Your task to perform on an android device: Set the phone to "Do not disturb". Image 0: 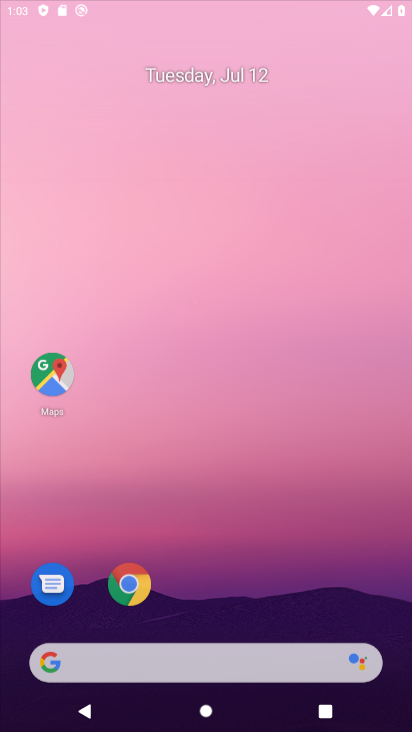
Step 0: click (242, 731)
Your task to perform on an android device: Set the phone to "Do not disturb". Image 1: 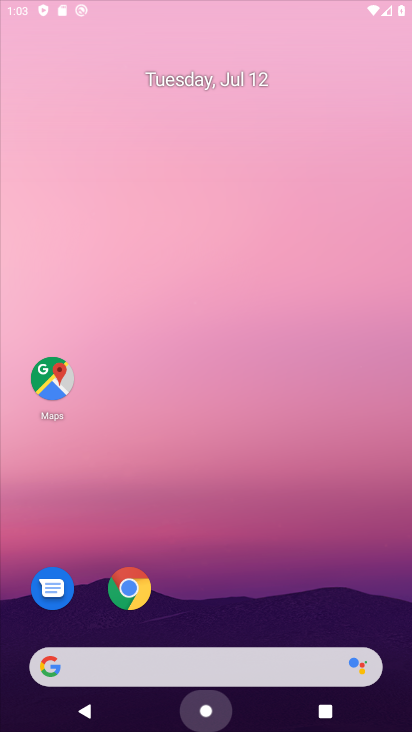
Step 1: drag from (230, 433) to (233, 52)
Your task to perform on an android device: Set the phone to "Do not disturb". Image 2: 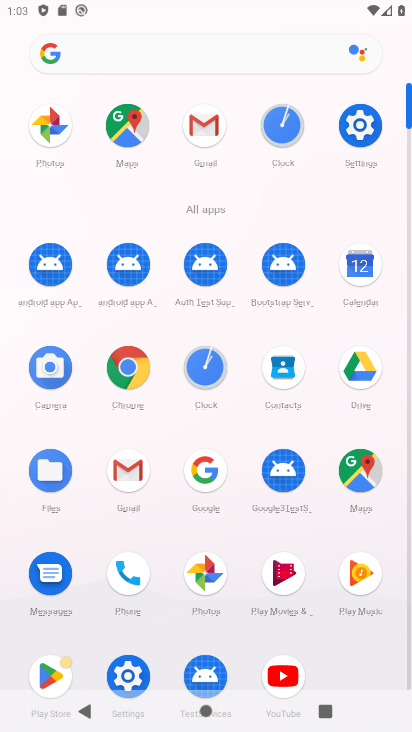
Step 2: click (346, 125)
Your task to perform on an android device: Set the phone to "Do not disturb". Image 3: 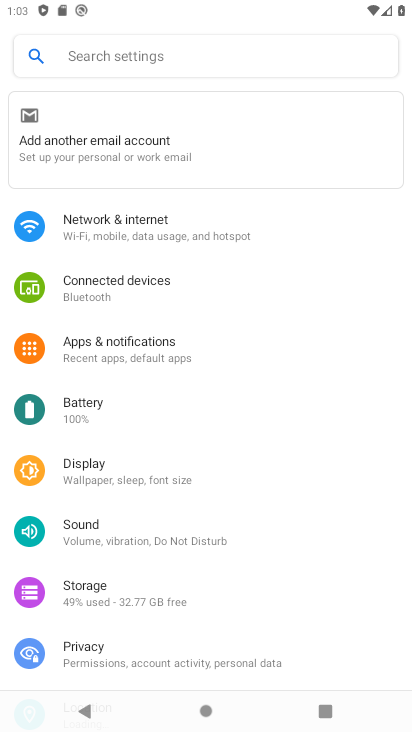
Step 3: click (142, 51)
Your task to perform on an android device: Set the phone to "Do not disturb". Image 4: 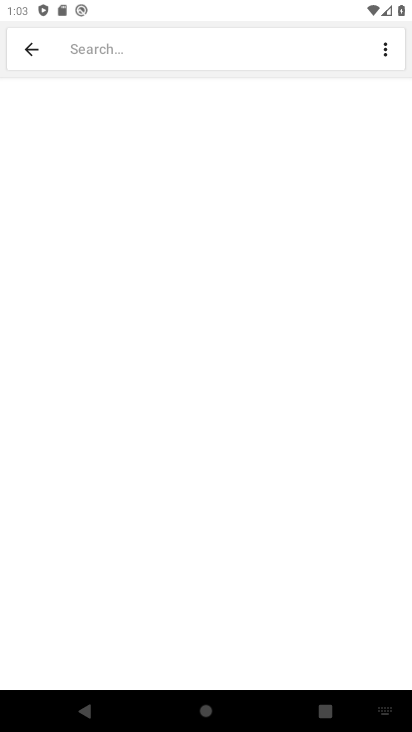
Step 4: click (132, 59)
Your task to perform on an android device: Set the phone to "Do not disturb". Image 5: 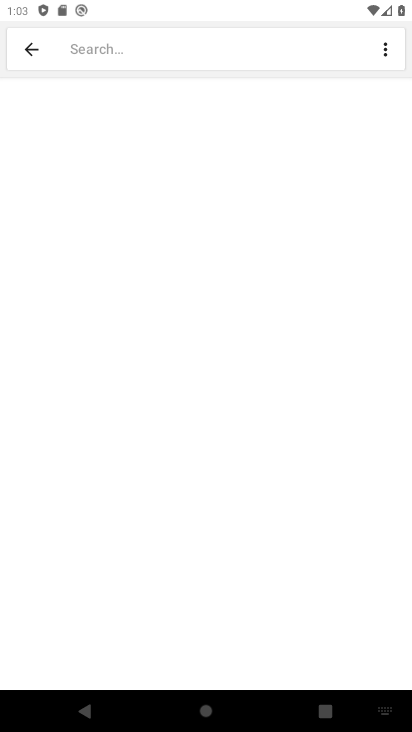
Step 5: type "Do not disturb"
Your task to perform on an android device: Set the phone to "Do not disturb". Image 6: 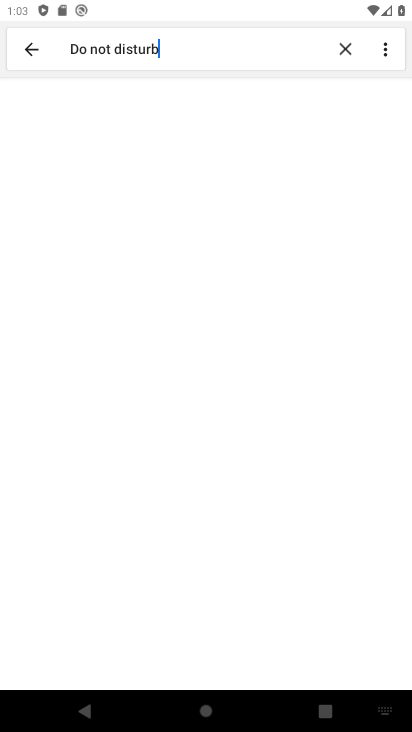
Step 6: type ""
Your task to perform on an android device: Set the phone to "Do not disturb". Image 7: 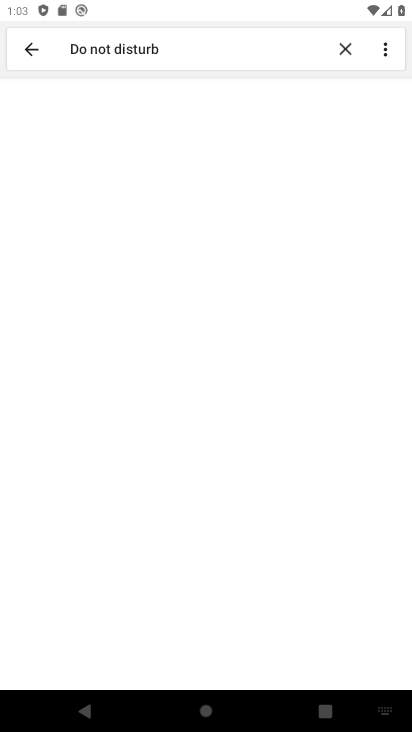
Step 7: click (133, 105)
Your task to perform on an android device: Set the phone to "Do not disturb". Image 8: 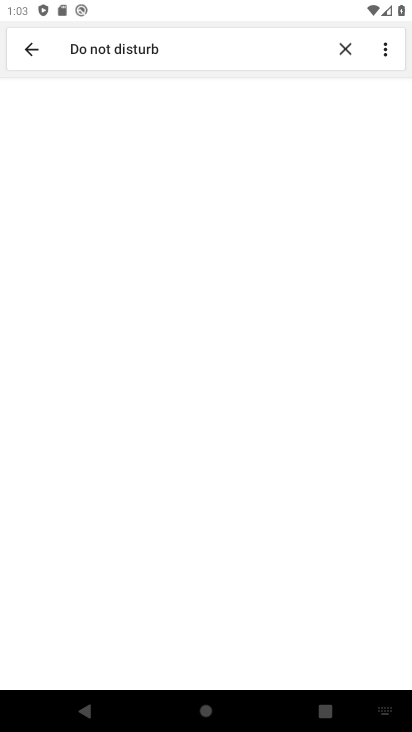
Step 8: click (130, 103)
Your task to perform on an android device: Set the phone to "Do not disturb". Image 9: 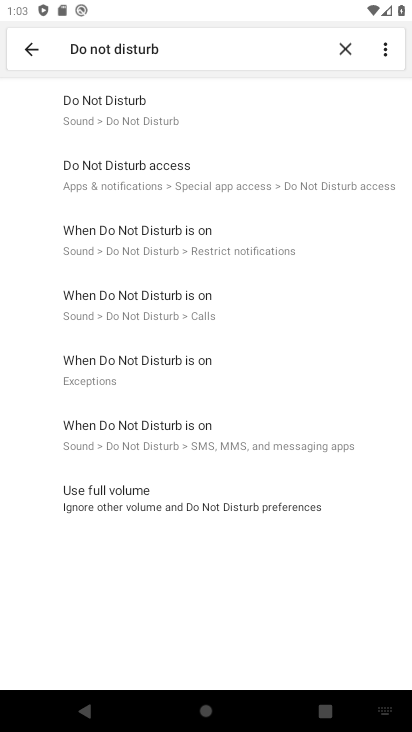
Step 9: click (136, 123)
Your task to perform on an android device: Set the phone to "Do not disturb". Image 10: 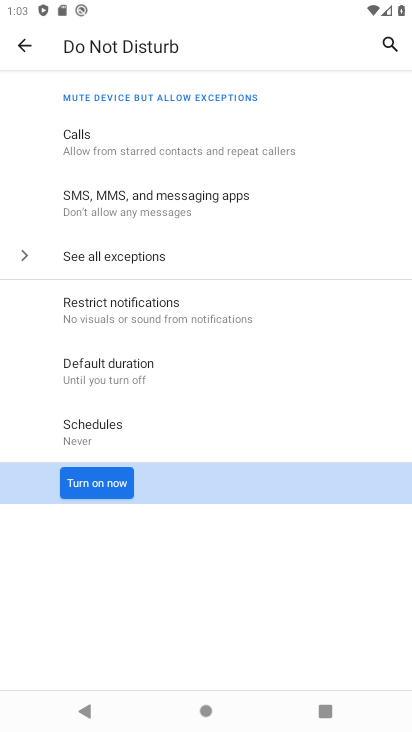
Step 10: drag from (220, 440) to (253, 221)
Your task to perform on an android device: Set the phone to "Do not disturb". Image 11: 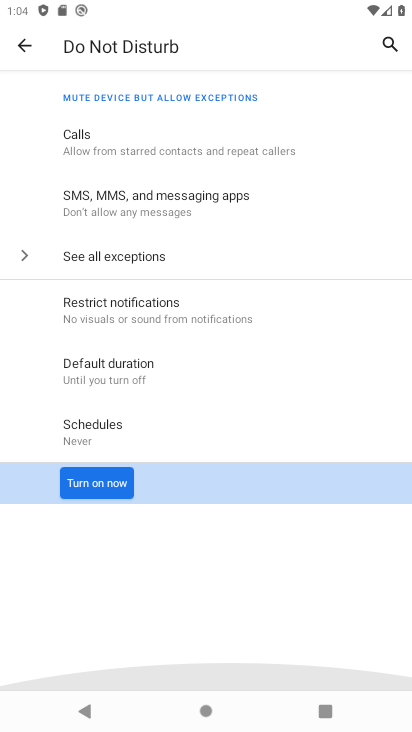
Step 11: drag from (221, 134) to (203, 542)
Your task to perform on an android device: Set the phone to "Do not disturb". Image 12: 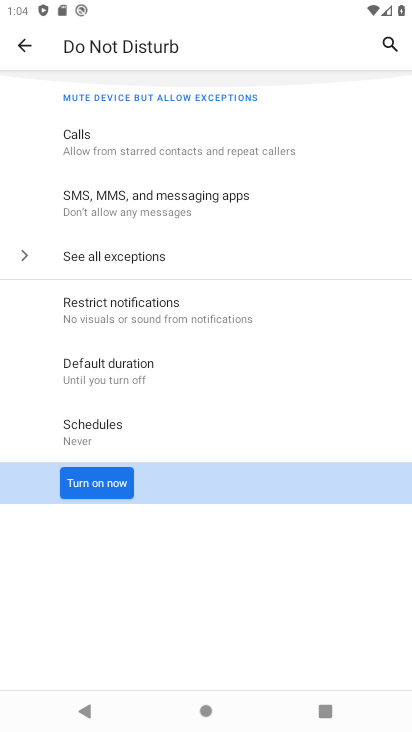
Step 12: click (195, 544)
Your task to perform on an android device: Set the phone to "Do not disturb". Image 13: 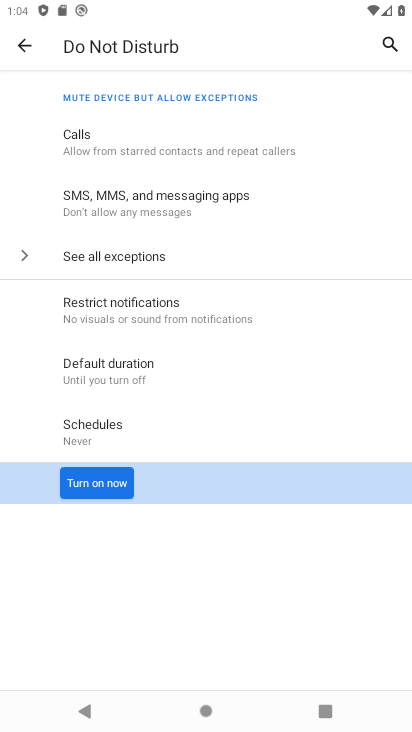
Step 13: click (250, 43)
Your task to perform on an android device: Set the phone to "Do not disturb". Image 14: 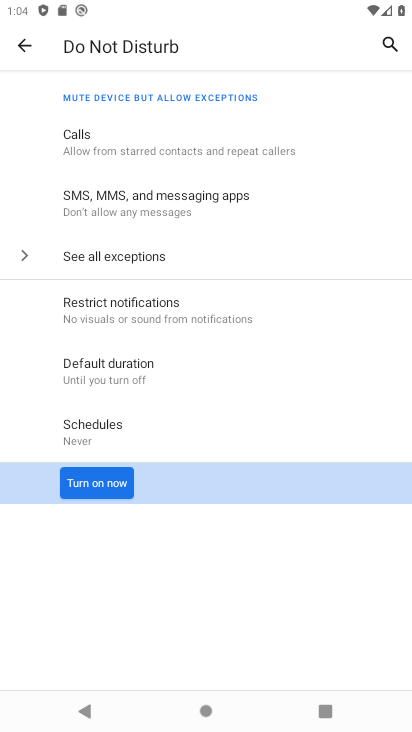
Step 14: drag from (121, 175) to (217, 537)
Your task to perform on an android device: Set the phone to "Do not disturb". Image 15: 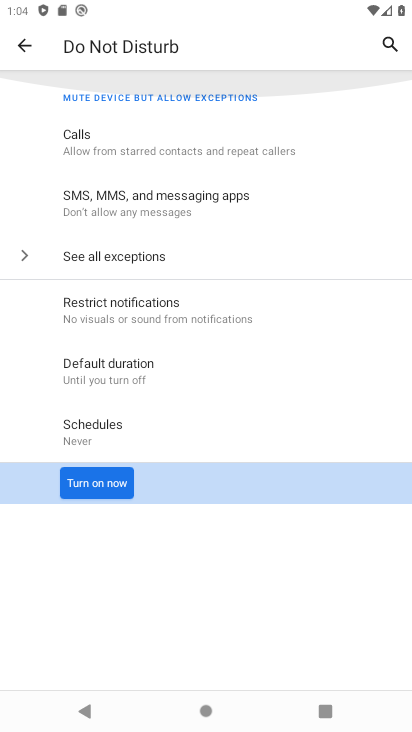
Step 15: click (163, 544)
Your task to perform on an android device: Set the phone to "Do not disturb". Image 16: 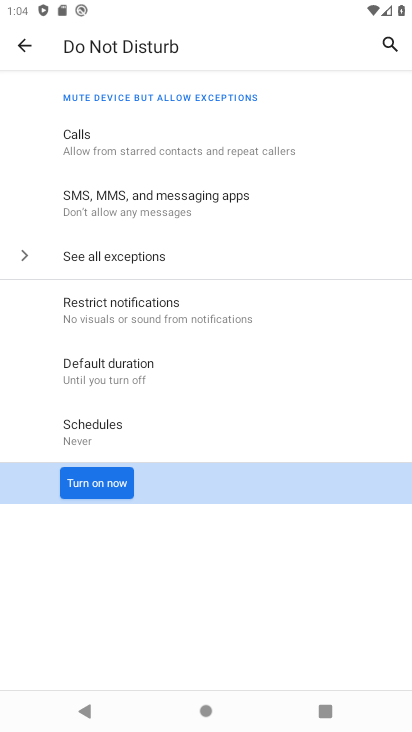
Step 16: drag from (156, 314) to (186, 548)
Your task to perform on an android device: Set the phone to "Do not disturb". Image 17: 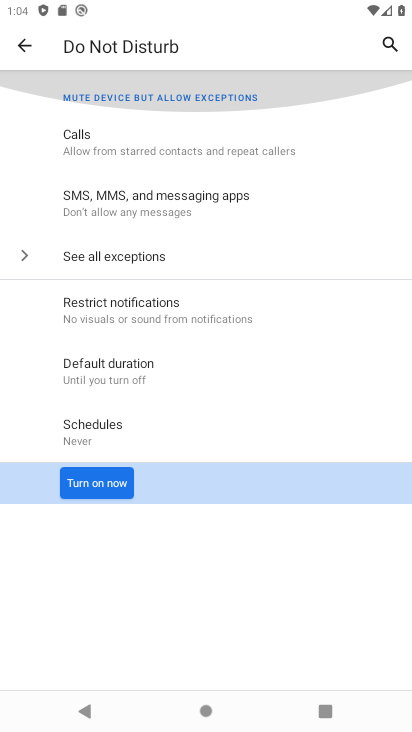
Step 17: click (174, 541)
Your task to perform on an android device: Set the phone to "Do not disturb". Image 18: 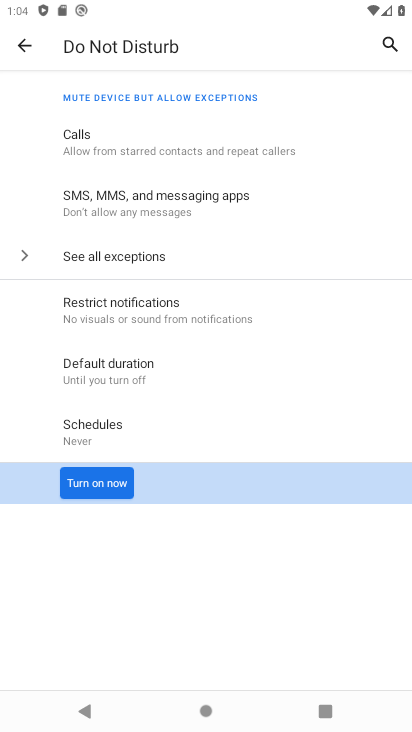
Step 18: click (151, 54)
Your task to perform on an android device: Set the phone to "Do not disturb". Image 19: 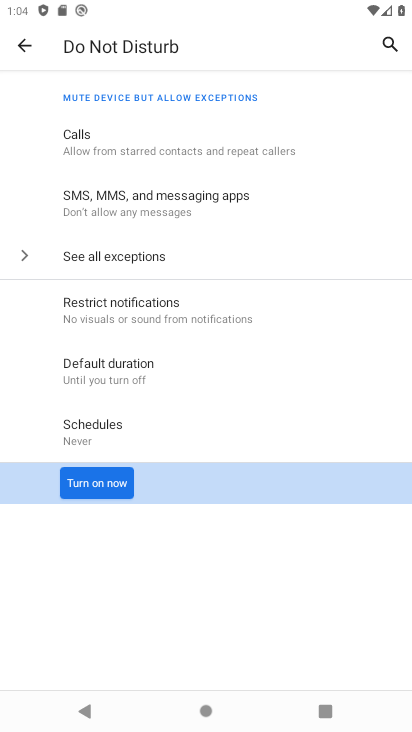
Step 19: click (151, 54)
Your task to perform on an android device: Set the phone to "Do not disturb". Image 20: 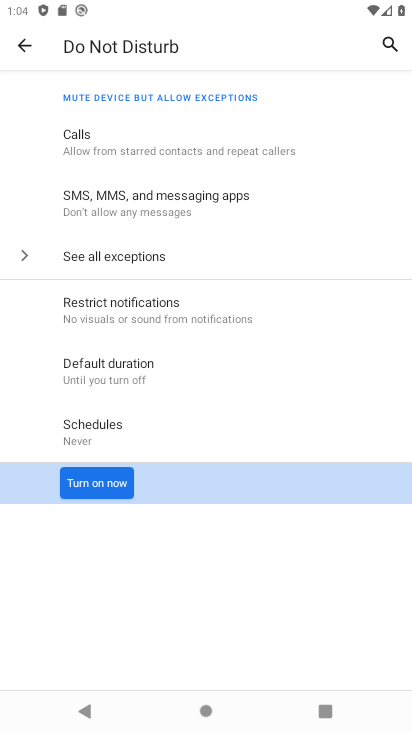
Step 20: click (162, 553)
Your task to perform on an android device: Set the phone to "Do not disturb". Image 21: 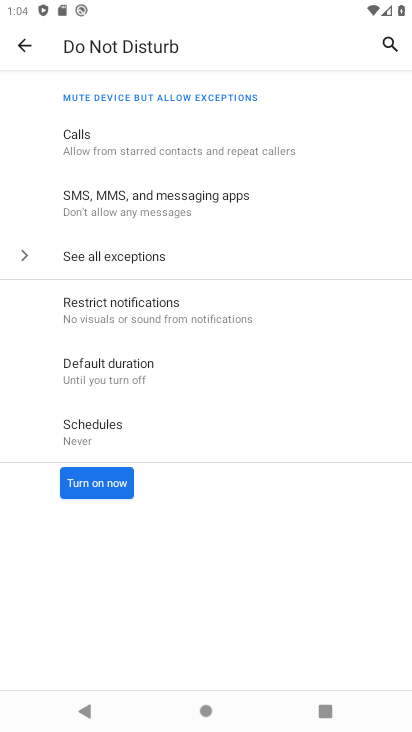
Step 21: task complete